Your task to perform on an android device: Open Maps and search for coffee Image 0: 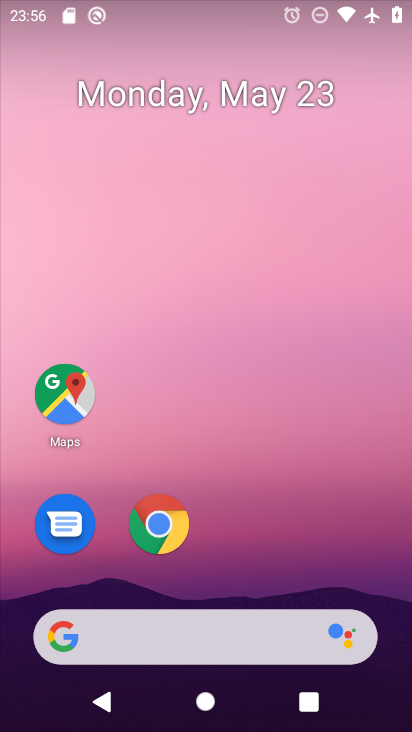
Step 0: click (47, 394)
Your task to perform on an android device: Open Maps and search for coffee Image 1: 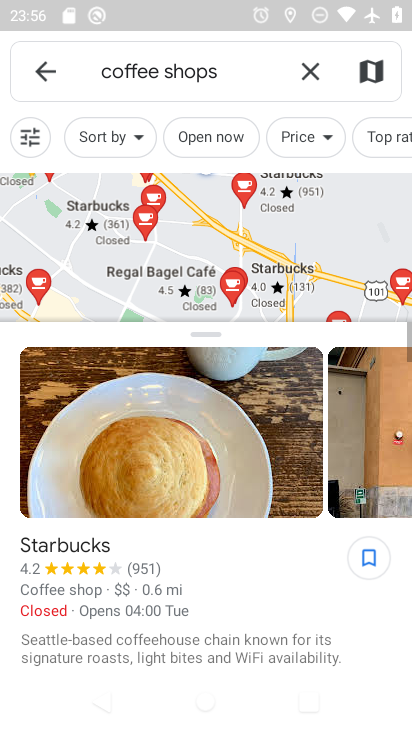
Step 1: click (297, 65)
Your task to perform on an android device: Open Maps and search for coffee Image 2: 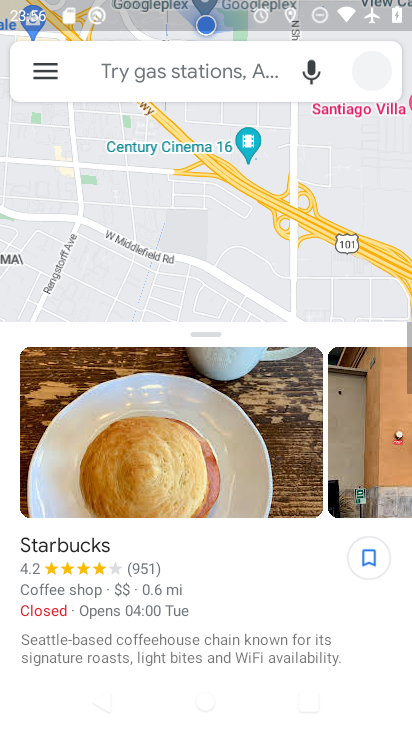
Step 2: click (217, 67)
Your task to perform on an android device: Open Maps and search for coffee Image 3: 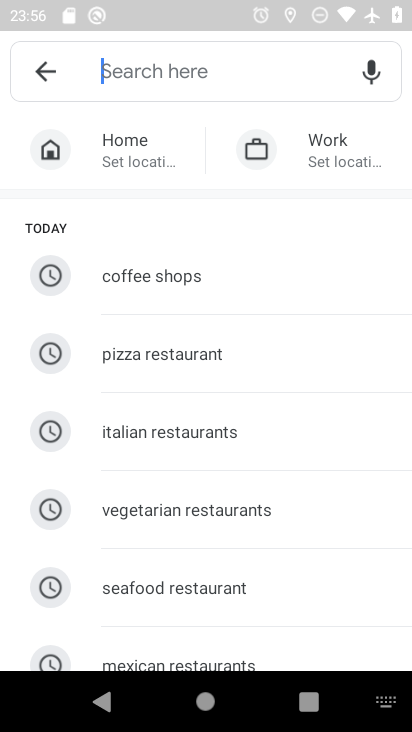
Step 3: type "coffee"
Your task to perform on an android device: Open Maps and search for coffee Image 4: 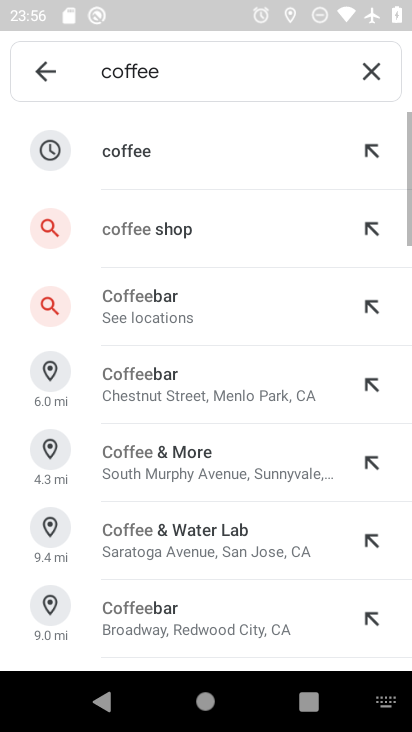
Step 4: click (128, 153)
Your task to perform on an android device: Open Maps and search for coffee Image 5: 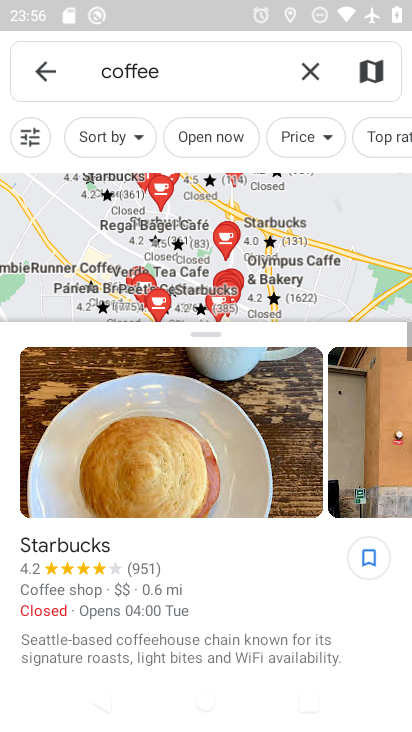
Step 5: task complete